Your task to perform on an android device: remove spam from my inbox in the gmail app Image 0: 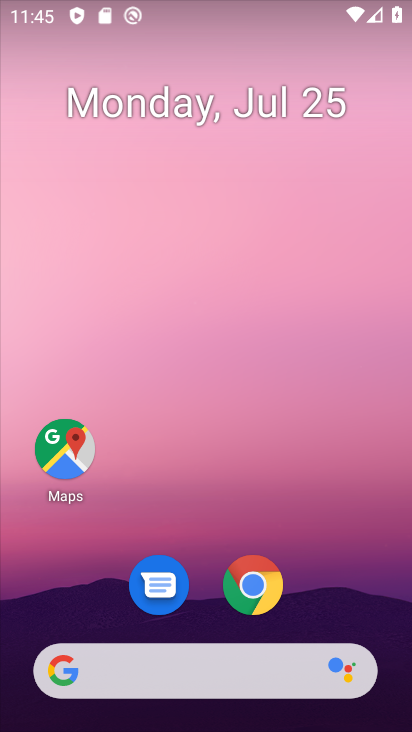
Step 0: drag from (342, 572) to (281, 22)
Your task to perform on an android device: remove spam from my inbox in the gmail app Image 1: 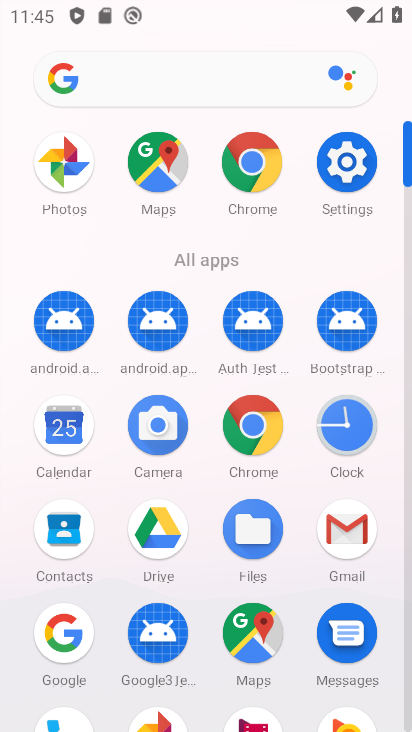
Step 1: click (344, 530)
Your task to perform on an android device: remove spam from my inbox in the gmail app Image 2: 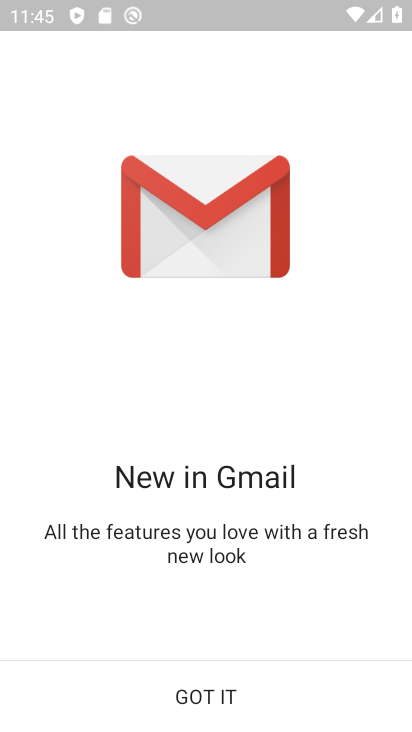
Step 2: click (205, 675)
Your task to perform on an android device: remove spam from my inbox in the gmail app Image 3: 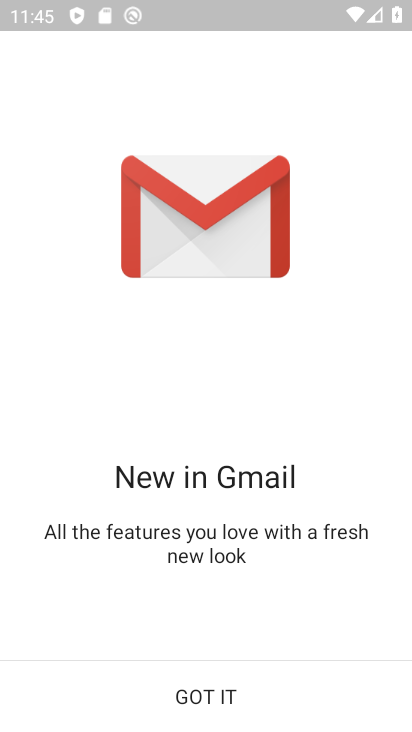
Step 3: click (216, 689)
Your task to perform on an android device: remove spam from my inbox in the gmail app Image 4: 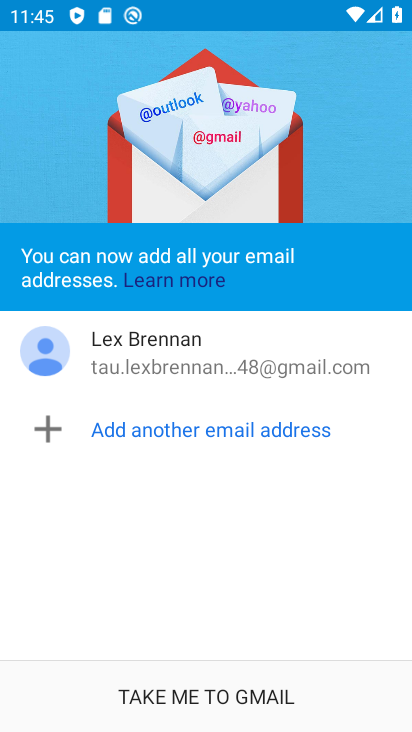
Step 4: click (218, 693)
Your task to perform on an android device: remove spam from my inbox in the gmail app Image 5: 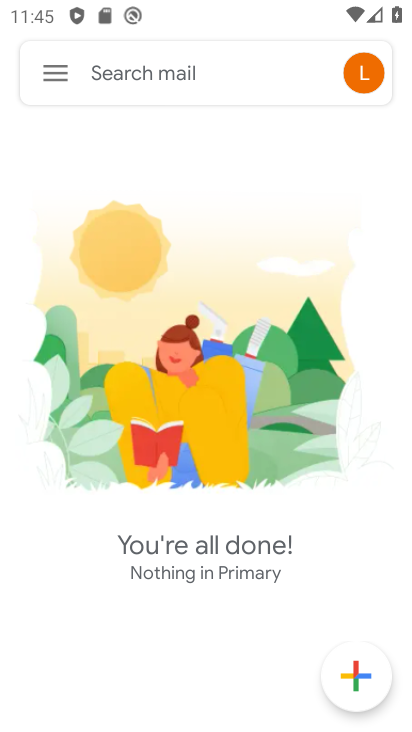
Step 5: click (61, 74)
Your task to perform on an android device: remove spam from my inbox in the gmail app Image 6: 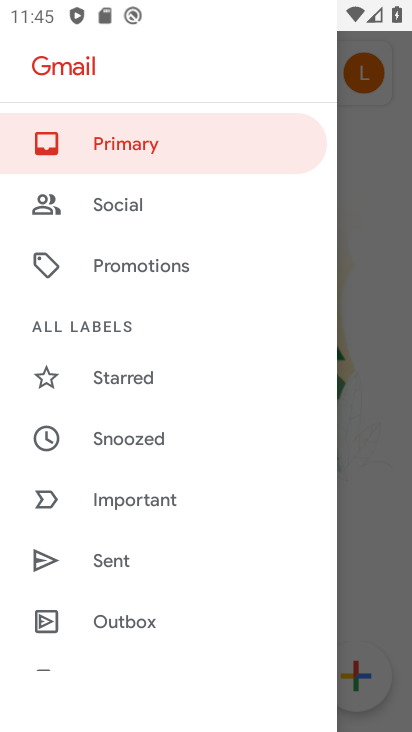
Step 6: drag from (168, 519) to (200, 59)
Your task to perform on an android device: remove spam from my inbox in the gmail app Image 7: 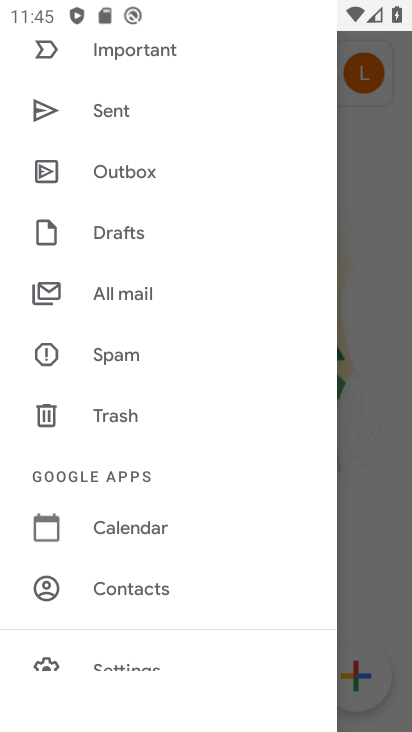
Step 7: click (132, 349)
Your task to perform on an android device: remove spam from my inbox in the gmail app Image 8: 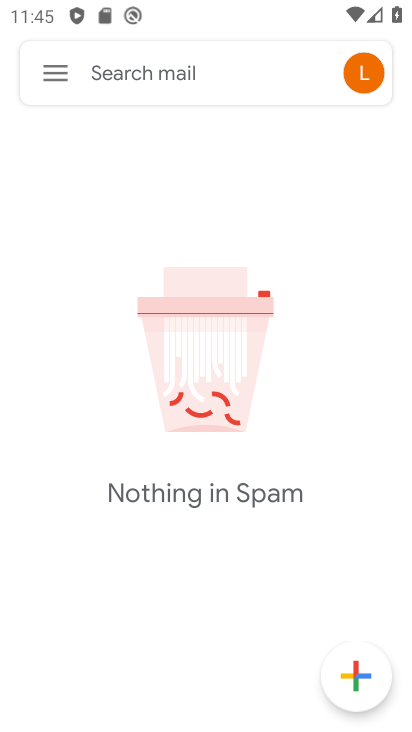
Step 8: task complete